Your task to perform on an android device: find which apps use the phone's location Image 0: 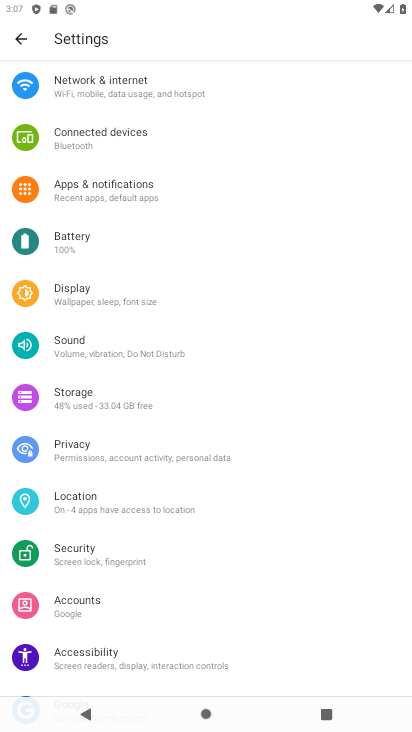
Step 0: click (105, 503)
Your task to perform on an android device: find which apps use the phone's location Image 1: 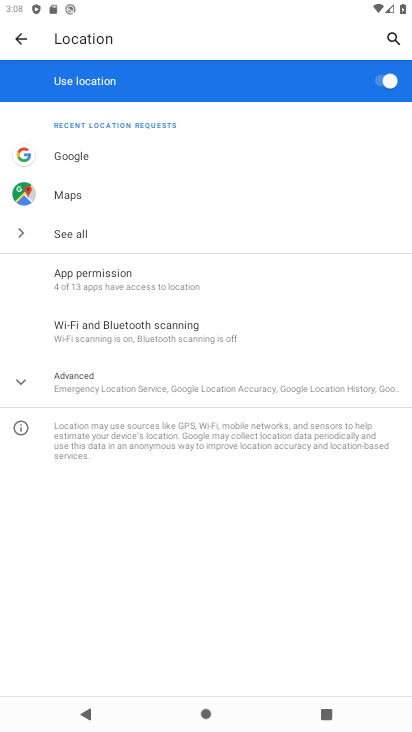
Step 1: click (152, 240)
Your task to perform on an android device: find which apps use the phone's location Image 2: 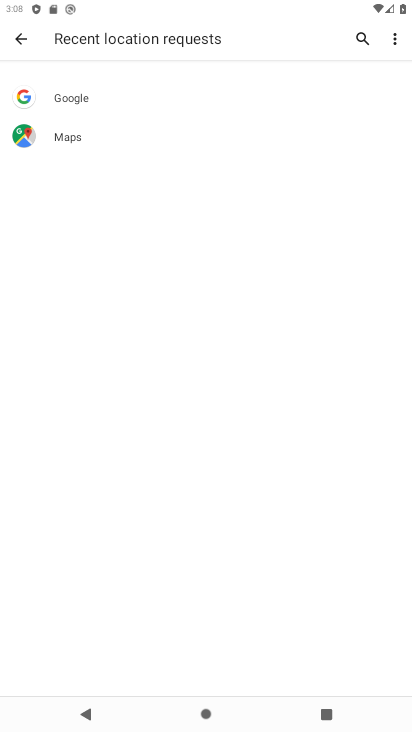
Step 2: task complete